Your task to perform on an android device: Search for sushi restaurants on Maps Image 0: 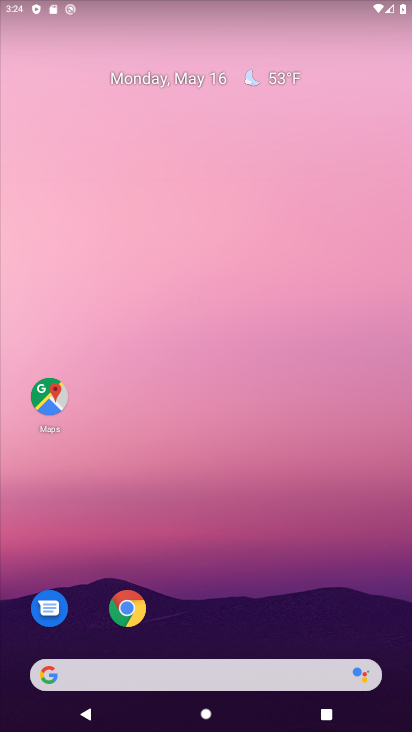
Step 0: click (48, 397)
Your task to perform on an android device: Search for sushi restaurants on Maps Image 1: 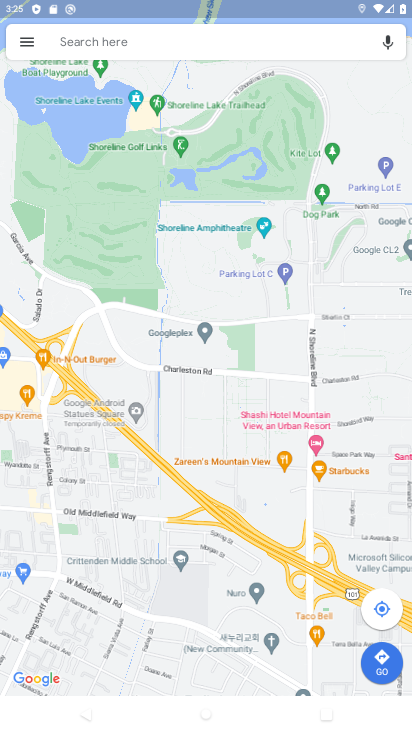
Step 1: click (194, 41)
Your task to perform on an android device: Search for sushi restaurants on Maps Image 2: 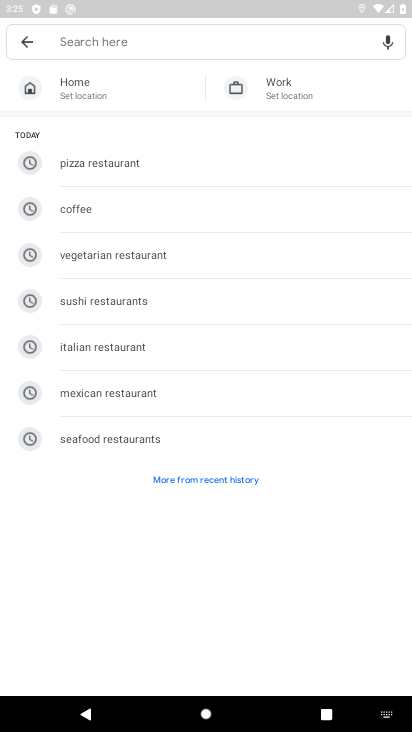
Step 2: type "sushi restaurants"
Your task to perform on an android device: Search for sushi restaurants on Maps Image 3: 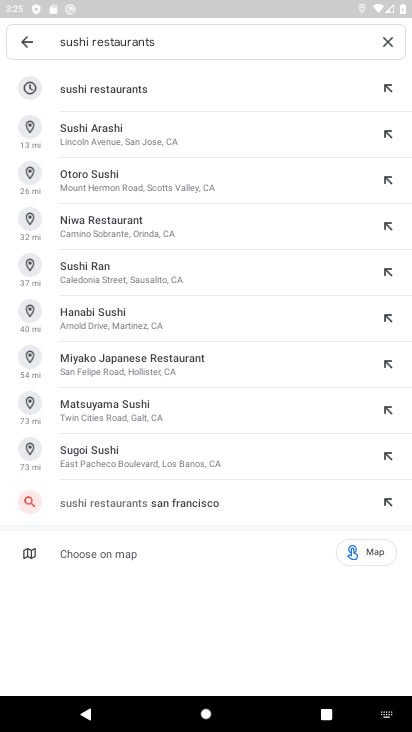
Step 3: click (137, 90)
Your task to perform on an android device: Search for sushi restaurants on Maps Image 4: 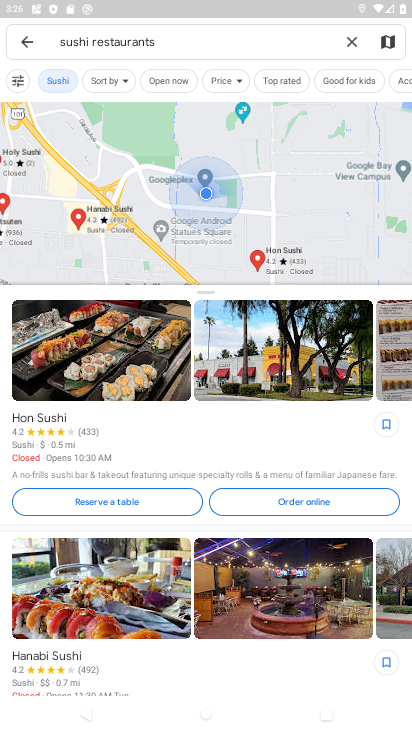
Step 4: task complete